Your task to perform on an android device: Go to Reddit.com Image 0: 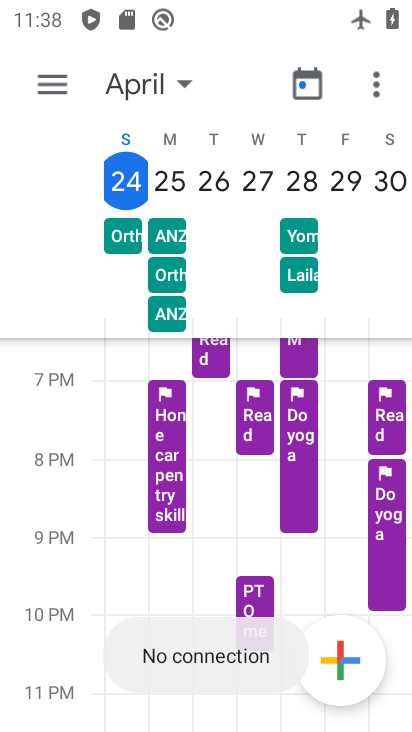
Step 0: drag from (307, 568) to (381, 325)
Your task to perform on an android device: Go to Reddit.com Image 1: 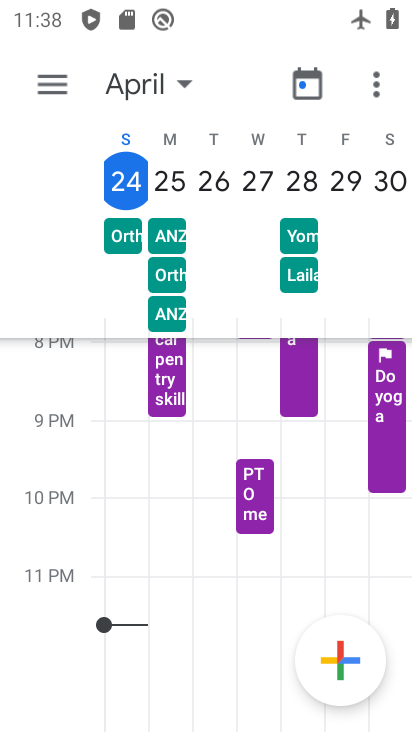
Step 1: press home button
Your task to perform on an android device: Go to Reddit.com Image 2: 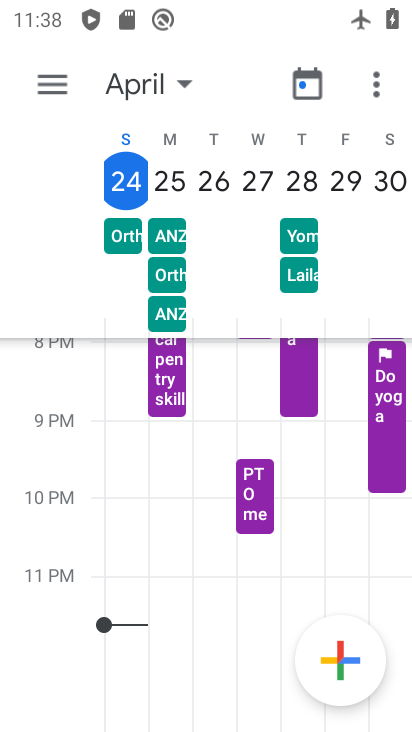
Step 2: drag from (381, 325) to (406, 371)
Your task to perform on an android device: Go to Reddit.com Image 3: 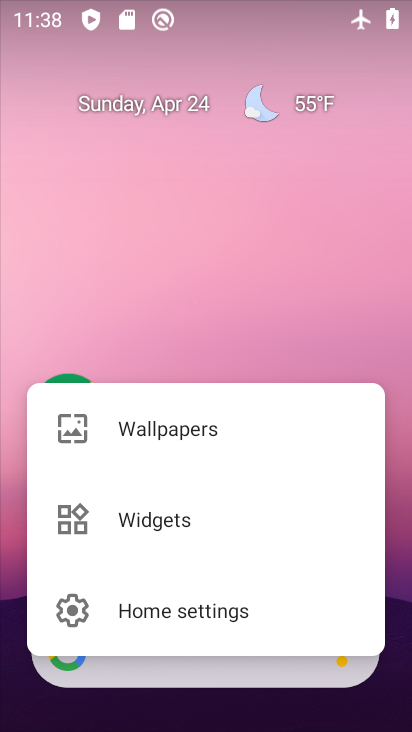
Step 3: click (331, 327)
Your task to perform on an android device: Go to Reddit.com Image 4: 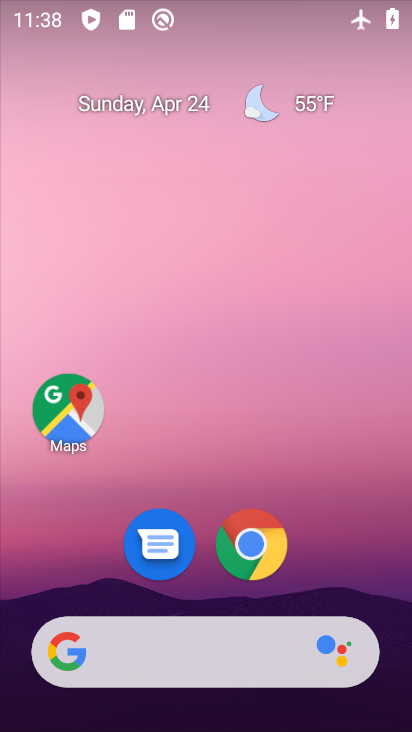
Step 4: click (250, 547)
Your task to perform on an android device: Go to Reddit.com Image 5: 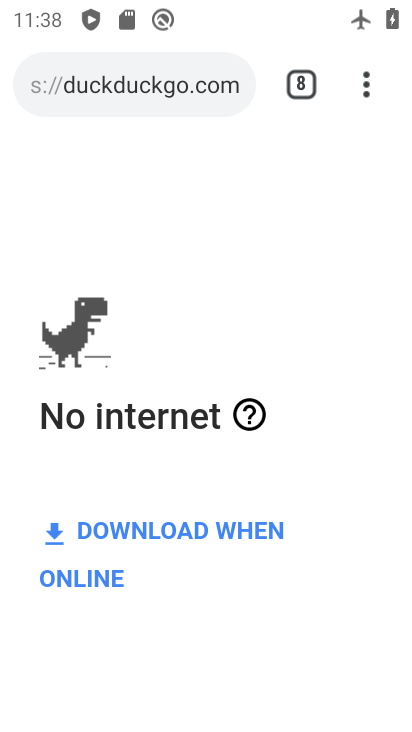
Step 5: click (305, 87)
Your task to perform on an android device: Go to Reddit.com Image 6: 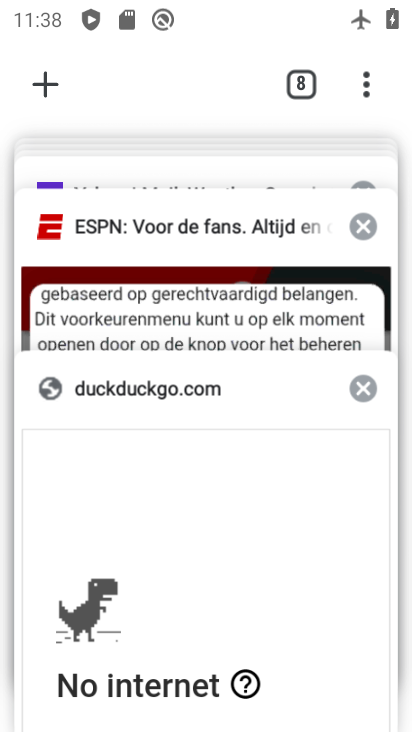
Step 6: drag from (196, 239) to (150, 661)
Your task to perform on an android device: Go to Reddit.com Image 7: 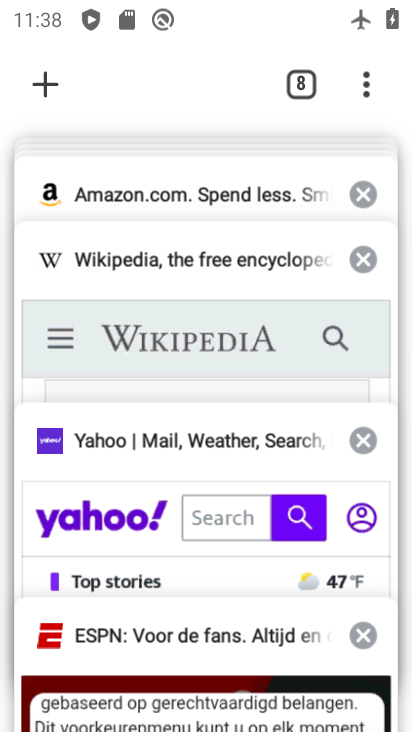
Step 7: drag from (145, 200) to (85, 620)
Your task to perform on an android device: Go to Reddit.com Image 8: 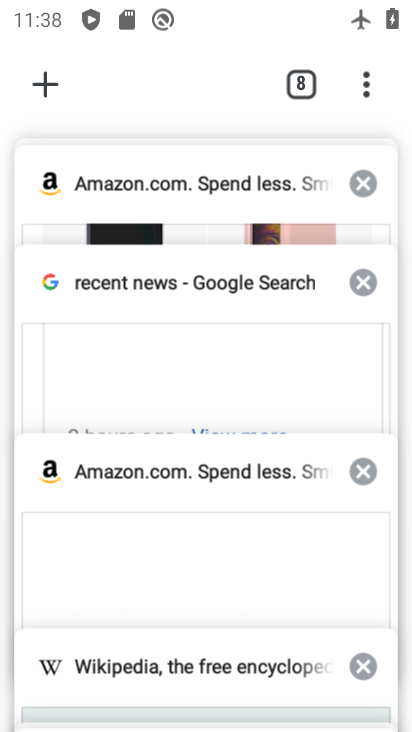
Step 8: drag from (127, 178) to (80, 494)
Your task to perform on an android device: Go to Reddit.com Image 9: 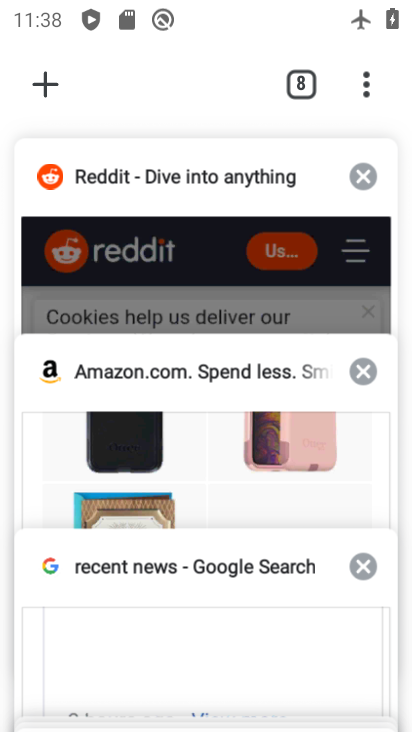
Step 9: click (147, 255)
Your task to perform on an android device: Go to Reddit.com Image 10: 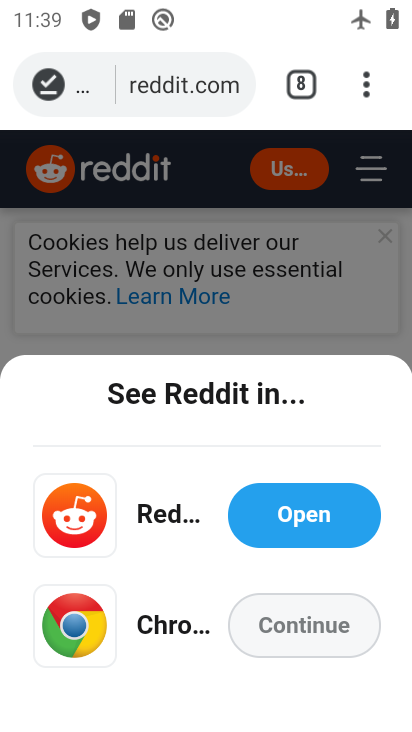
Step 10: task complete